Your task to perform on an android device: Open Yahoo.com Image 0: 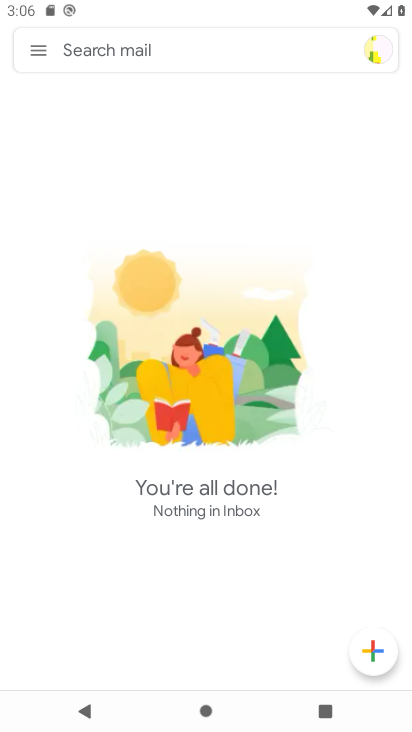
Step 0: press home button
Your task to perform on an android device: Open Yahoo.com Image 1: 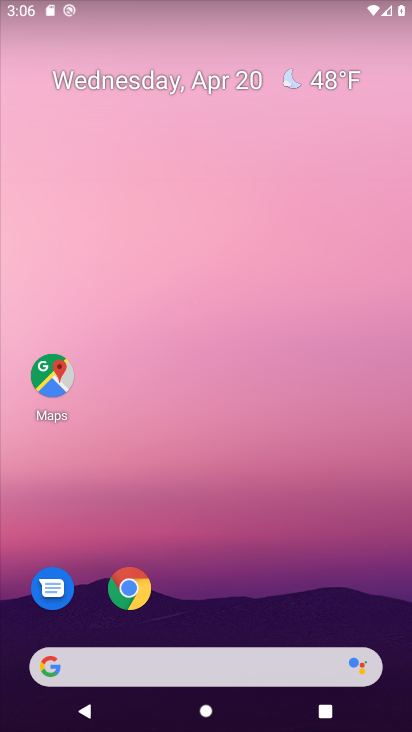
Step 1: drag from (256, 592) to (324, 191)
Your task to perform on an android device: Open Yahoo.com Image 2: 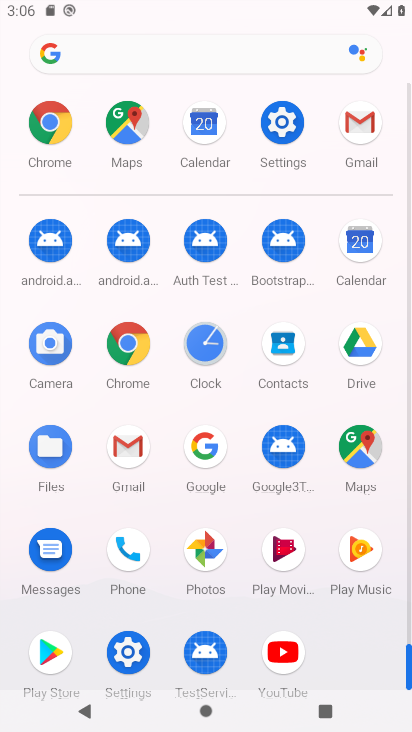
Step 2: click (120, 349)
Your task to perform on an android device: Open Yahoo.com Image 3: 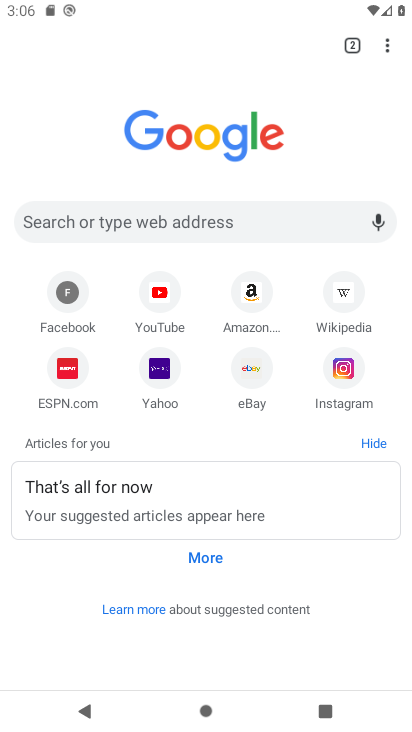
Step 3: click (162, 364)
Your task to perform on an android device: Open Yahoo.com Image 4: 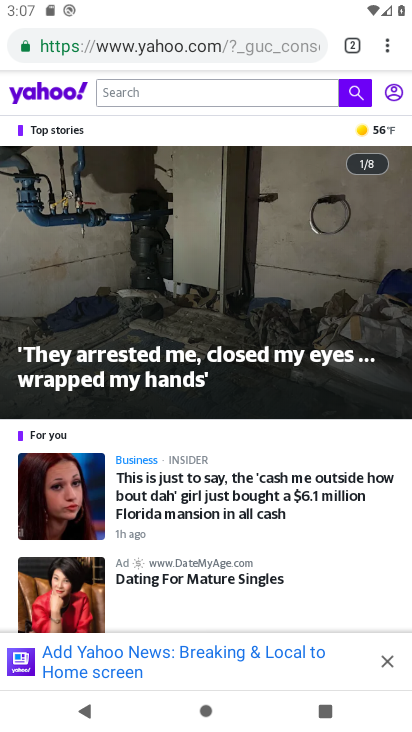
Step 4: task complete